Your task to perform on an android device: stop showing notifications on the lock screen Image 0: 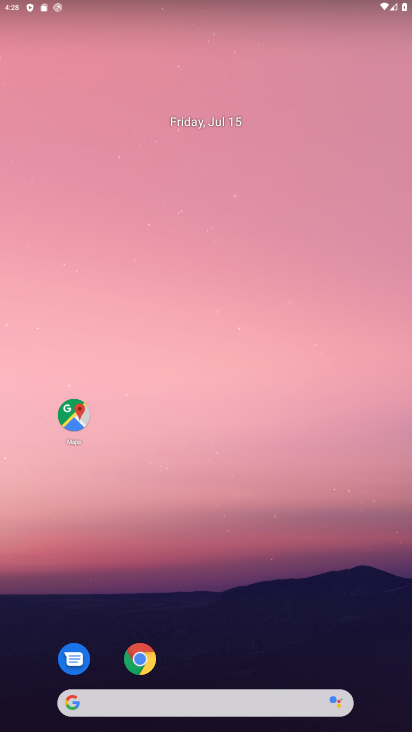
Step 0: drag from (224, 635) to (184, 119)
Your task to perform on an android device: stop showing notifications on the lock screen Image 1: 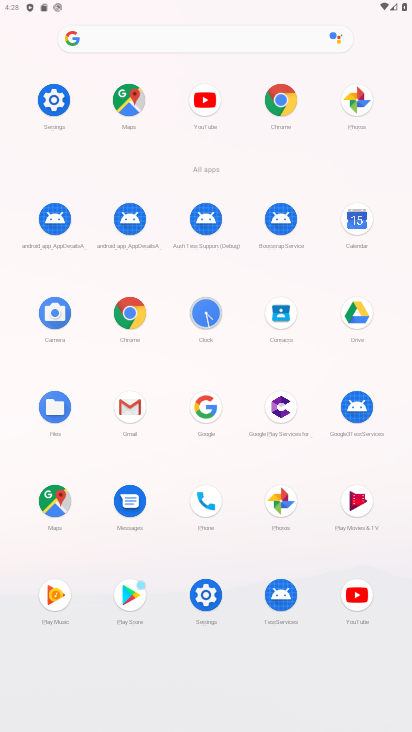
Step 1: click (50, 107)
Your task to perform on an android device: stop showing notifications on the lock screen Image 2: 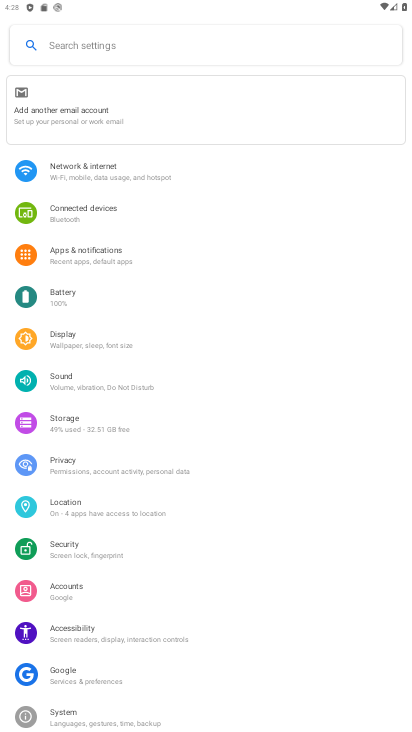
Step 2: click (215, 263)
Your task to perform on an android device: stop showing notifications on the lock screen Image 3: 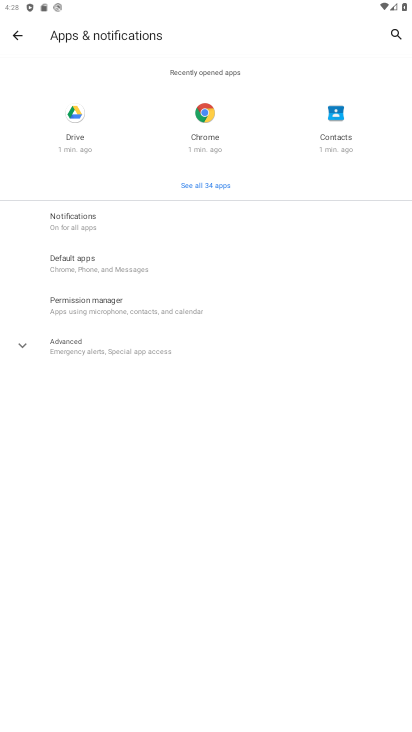
Step 3: click (121, 225)
Your task to perform on an android device: stop showing notifications on the lock screen Image 4: 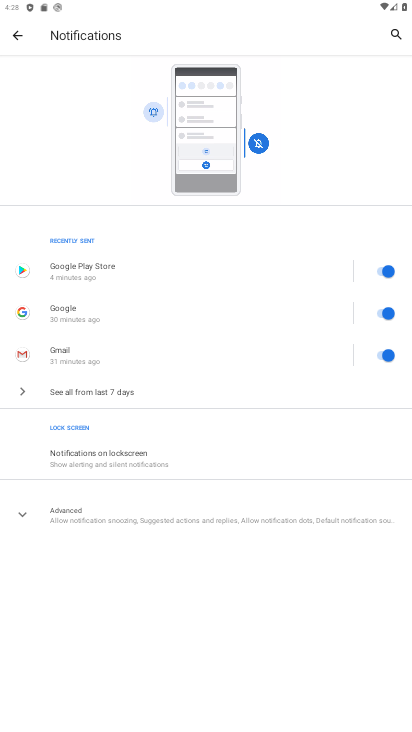
Step 4: click (174, 474)
Your task to perform on an android device: stop showing notifications on the lock screen Image 5: 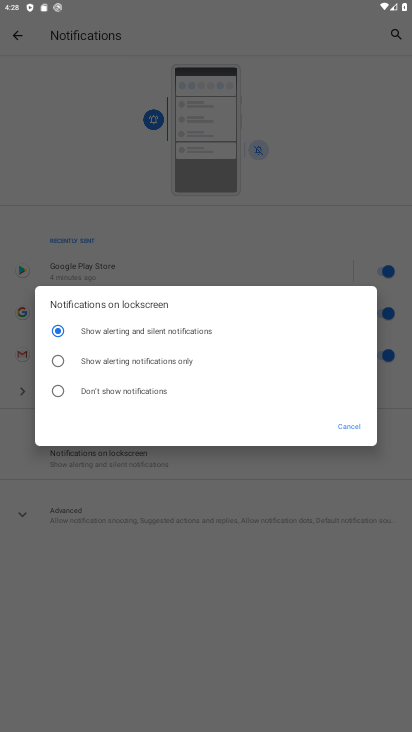
Step 5: click (158, 393)
Your task to perform on an android device: stop showing notifications on the lock screen Image 6: 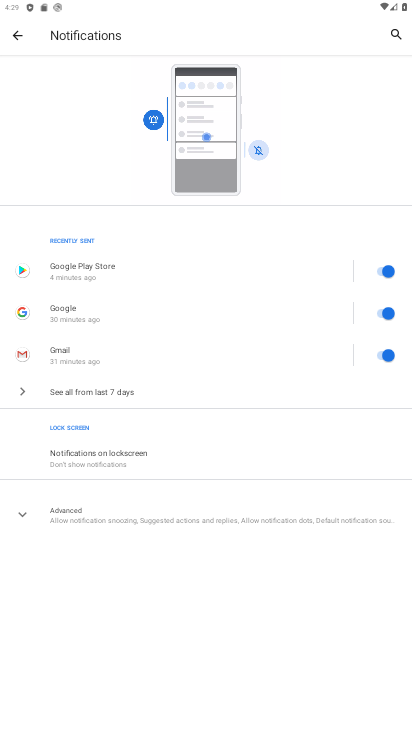
Step 6: task complete